Your task to perform on an android device: Check my email Image 0: 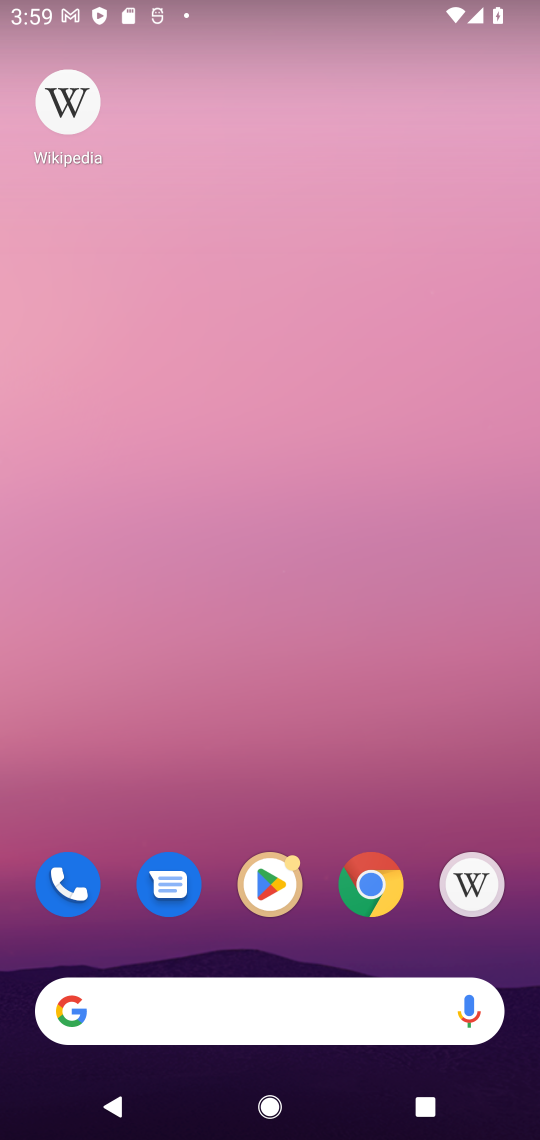
Step 0: drag from (342, 952) to (345, 15)
Your task to perform on an android device: Check my email Image 1: 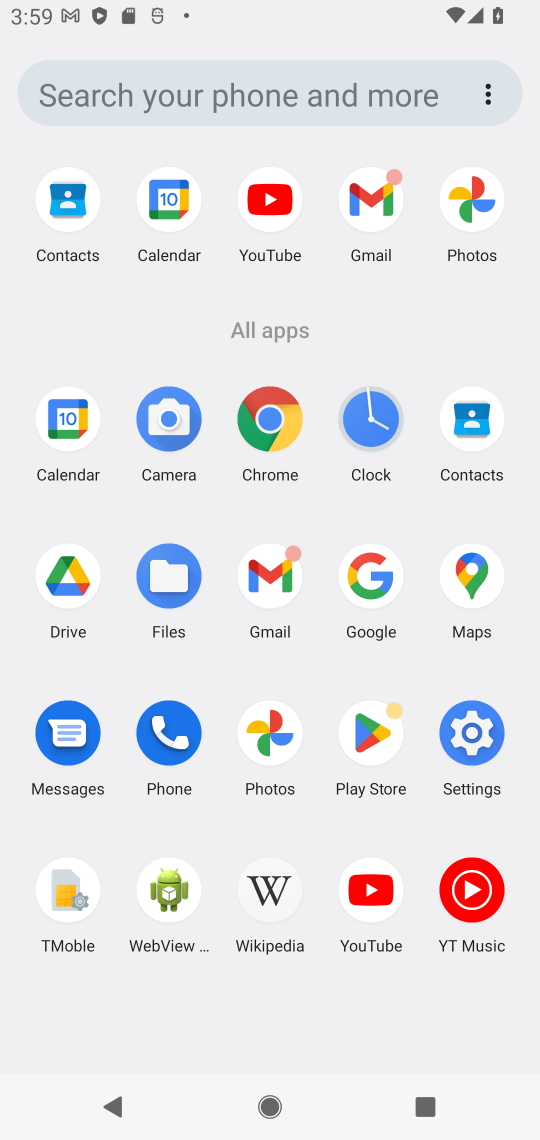
Step 1: click (378, 197)
Your task to perform on an android device: Check my email Image 2: 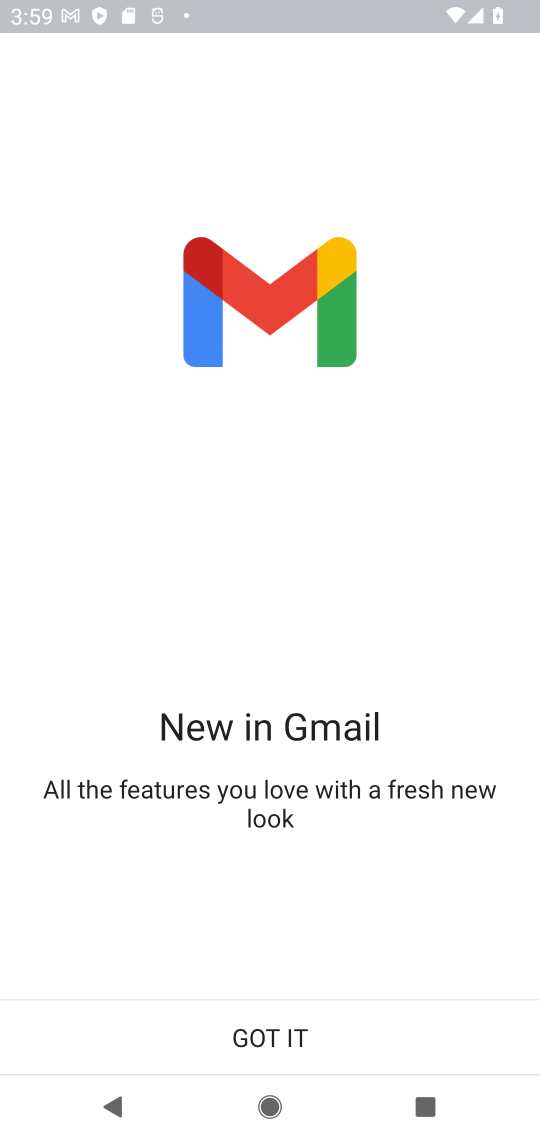
Step 2: click (296, 1037)
Your task to perform on an android device: Check my email Image 3: 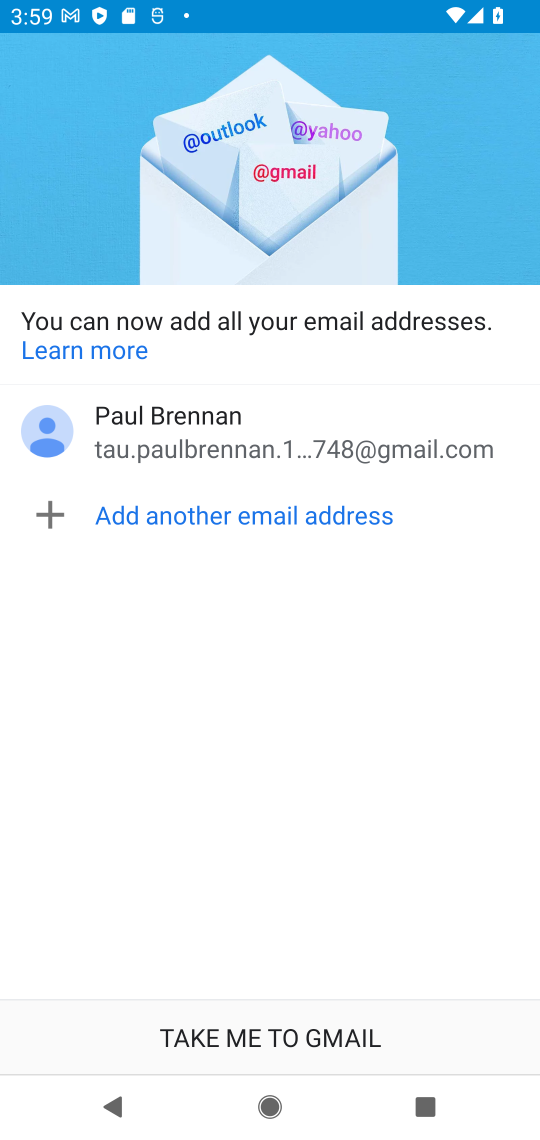
Step 3: click (299, 1033)
Your task to perform on an android device: Check my email Image 4: 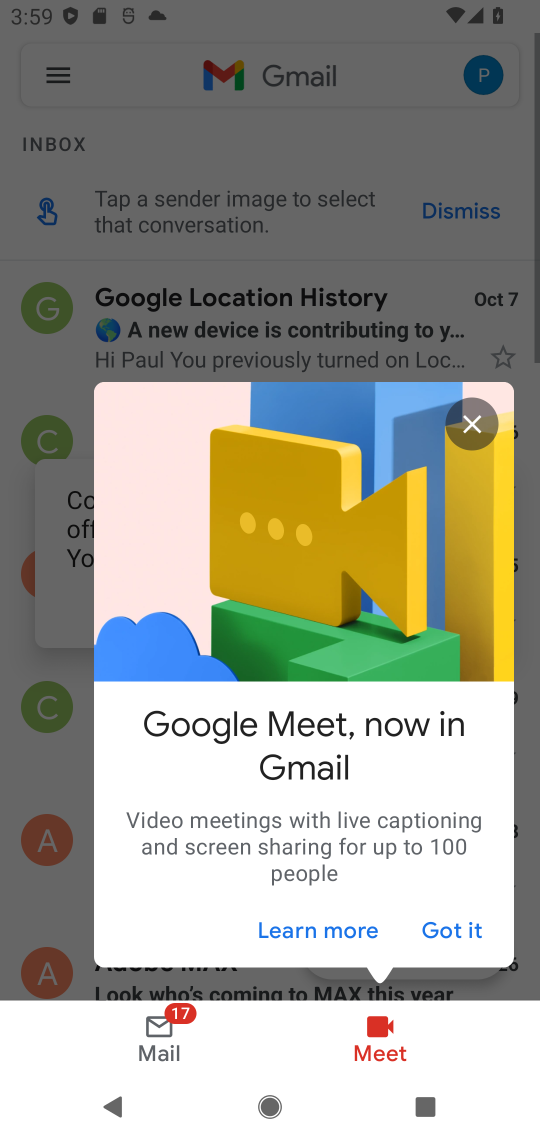
Step 4: click (435, 925)
Your task to perform on an android device: Check my email Image 5: 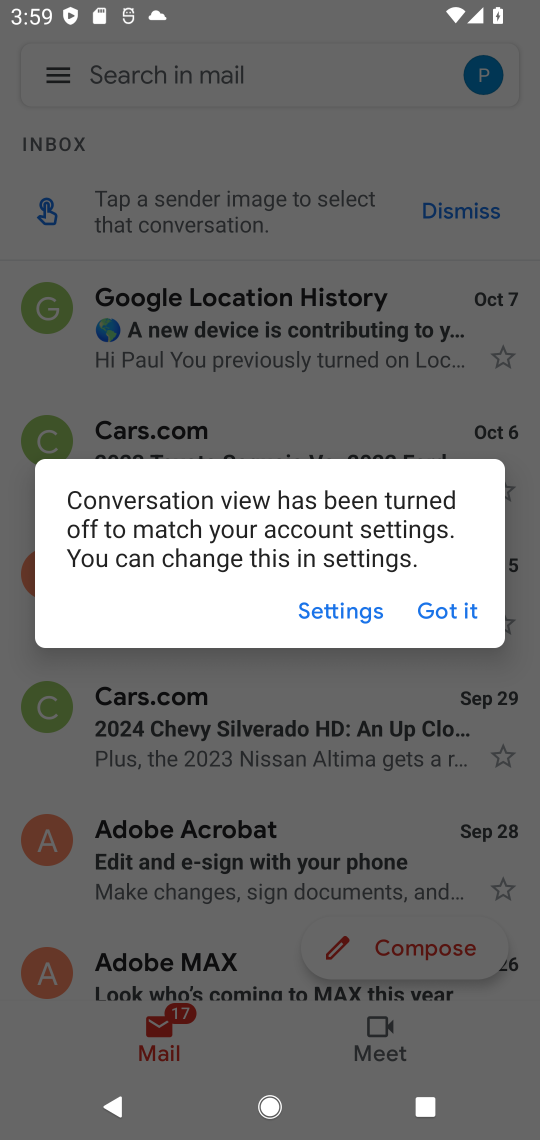
Step 5: click (454, 620)
Your task to perform on an android device: Check my email Image 6: 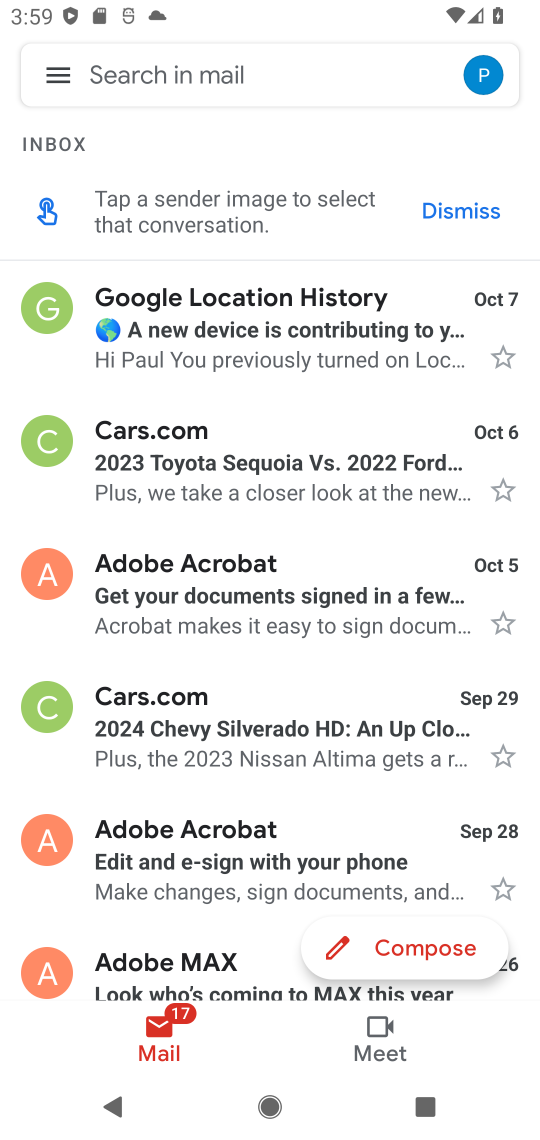
Step 6: task complete